Your task to perform on an android device: Go to Android settings Image 0: 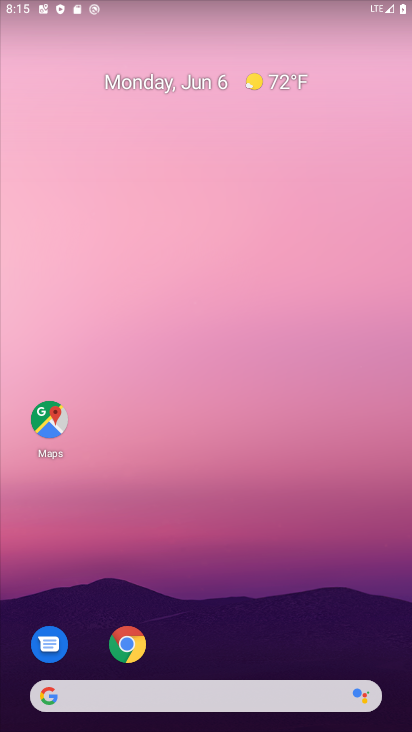
Step 0: press home button
Your task to perform on an android device: Go to Android settings Image 1: 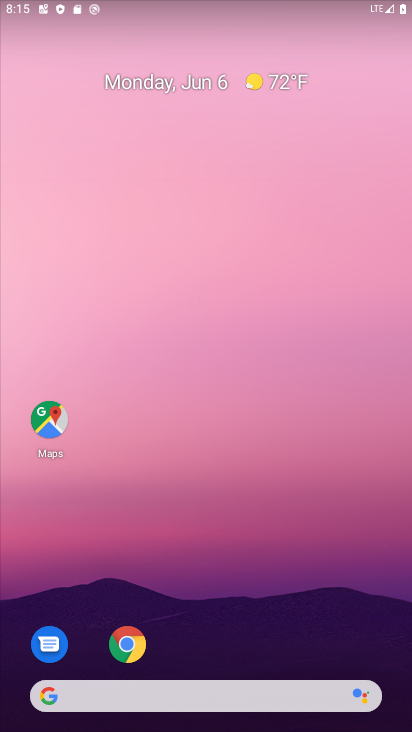
Step 1: drag from (252, 718) to (257, 168)
Your task to perform on an android device: Go to Android settings Image 2: 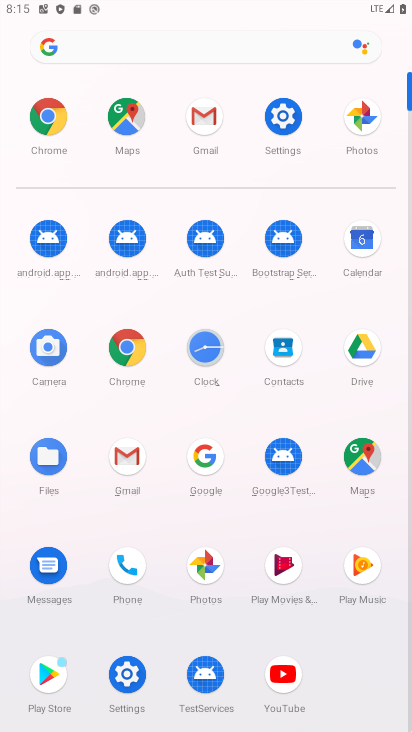
Step 2: click (279, 131)
Your task to perform on an android device: Go to Android settings Image 3: 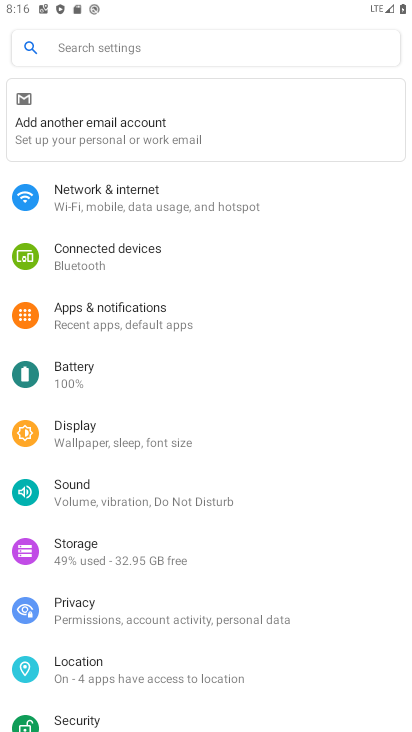
Step 3: click (102, 54)
Your task to perform on an android device: Go to Android settings Image 4: 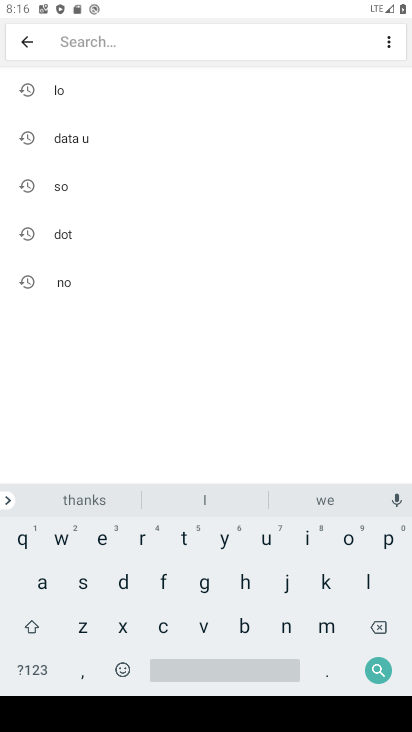
Step 4: click (36, 577)
Your task to perform on an android device: Go to Android settings Image 5: 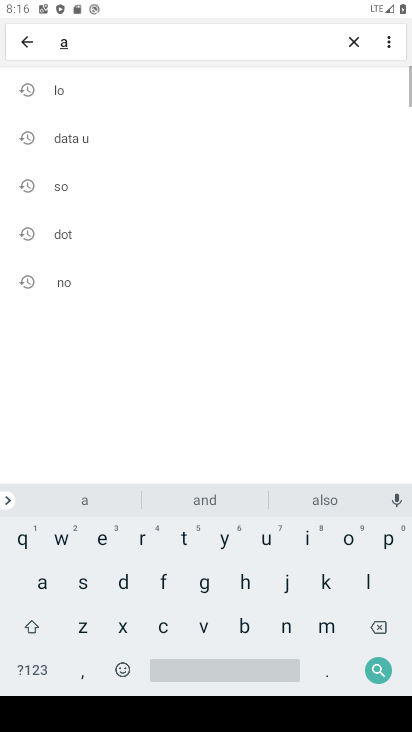
Step 5: click (281, 633)
Your task to perform on an android device: Go to Android settings Image 6: 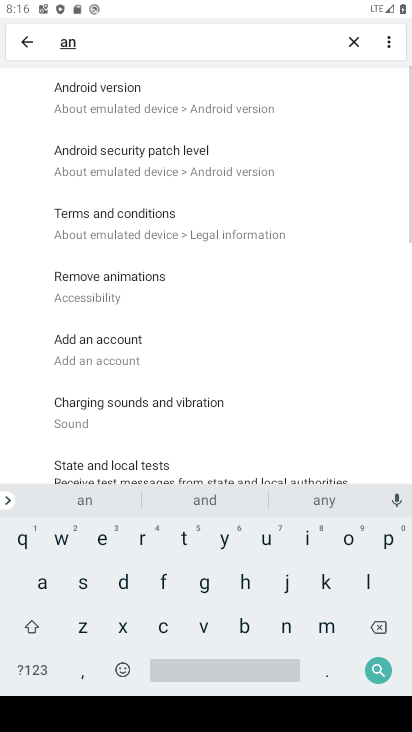
Step 6: click (121, 105)
Your task to perform on an android device: Go to Android settings Image 7: 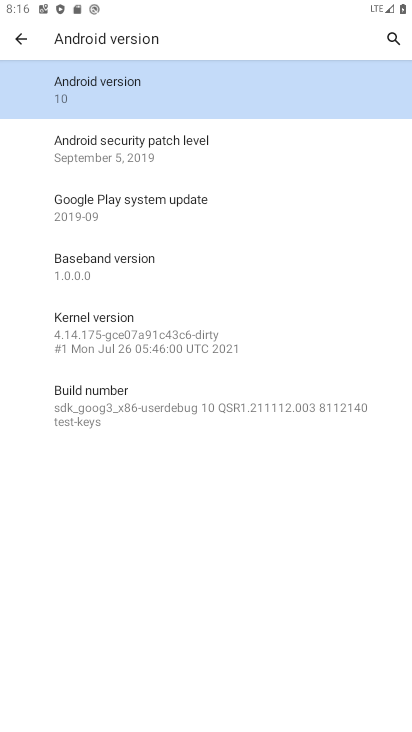
Step 7: click (84, 66)
Your task to perform on an android device: Go to Android settings Image 8: 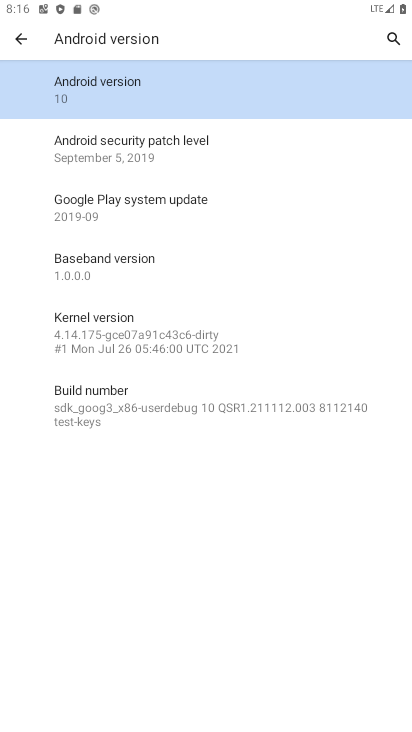
Step 8: task complete